Your task to perform on an android device: see tabs open on other devices in the chrome app Image 0: 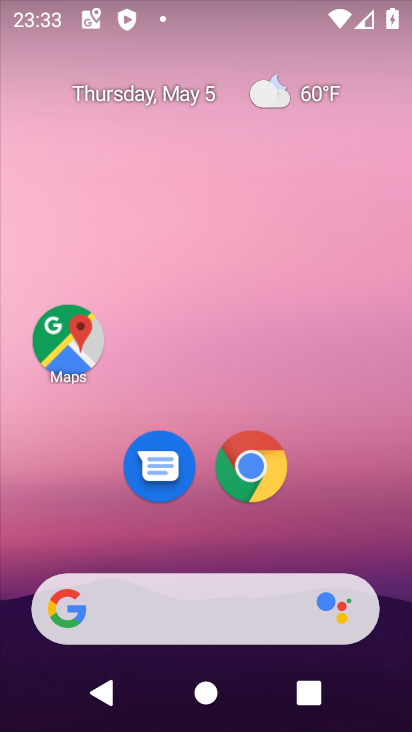
Step 0: click (245, 471)
Your task to perform on an android device: see tabs open on other devices in the chrome app Image 1: 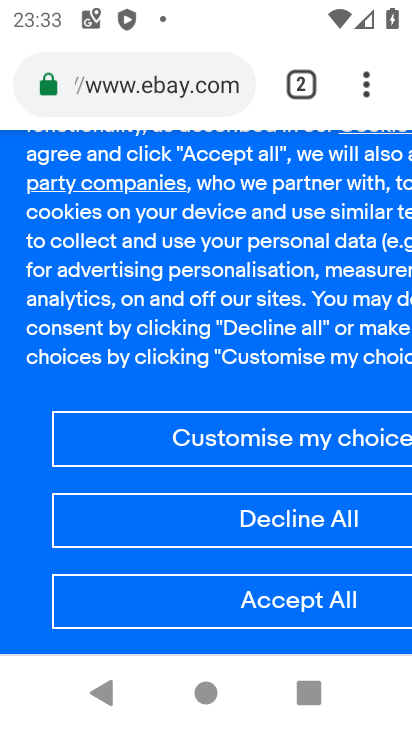
Step 1: click (305, 87)
Your task to perform on an android device: see tabs open on other devices in the chrome app Image 2: 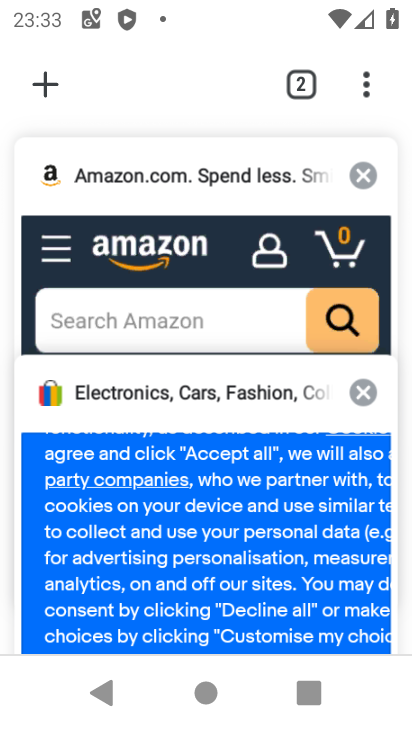
Step 2: task complete